Your task to perform on an android device: toggle notifications settings in the gmail app Image 0: 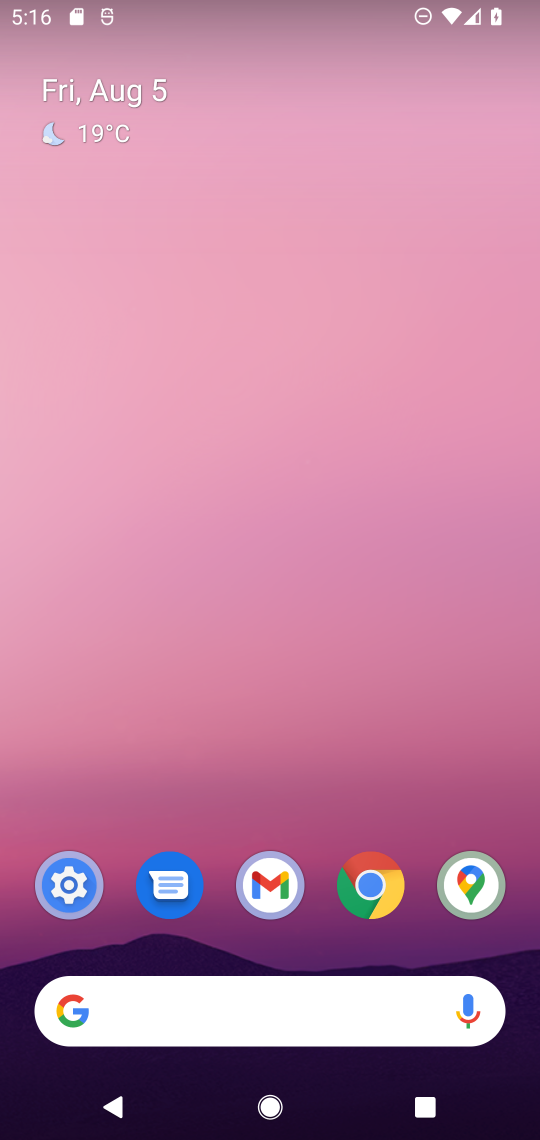
Step 0: drag from (324, 956) to (322, 0)
Your task to perform on an android device: toggle notifications settings in the gmail app Image 1: 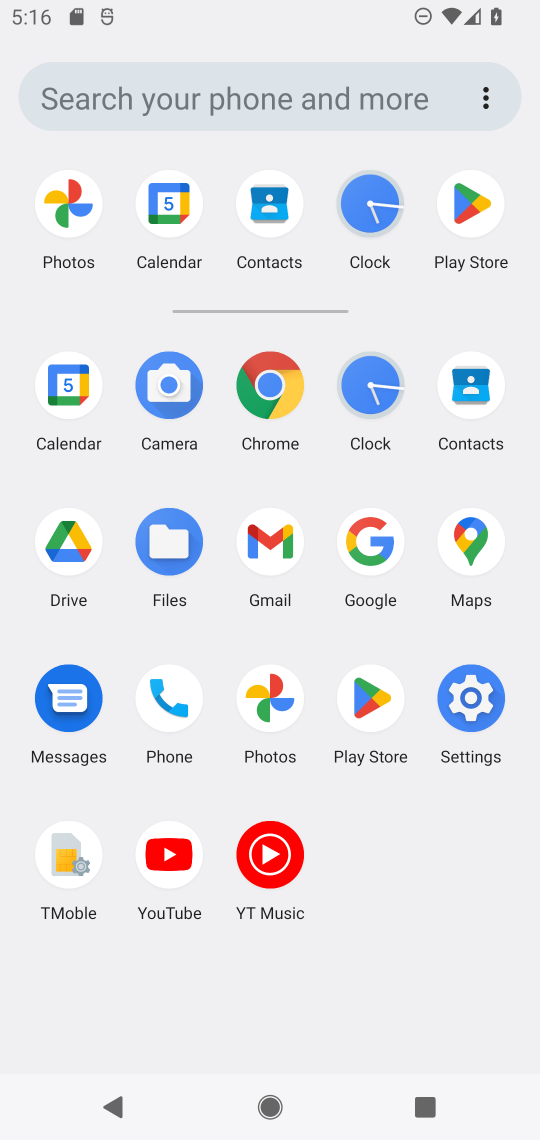
Step 1: click (267, 539)
Your task to perform on an android device: toggle notifications settings in the gmail app Image 2: 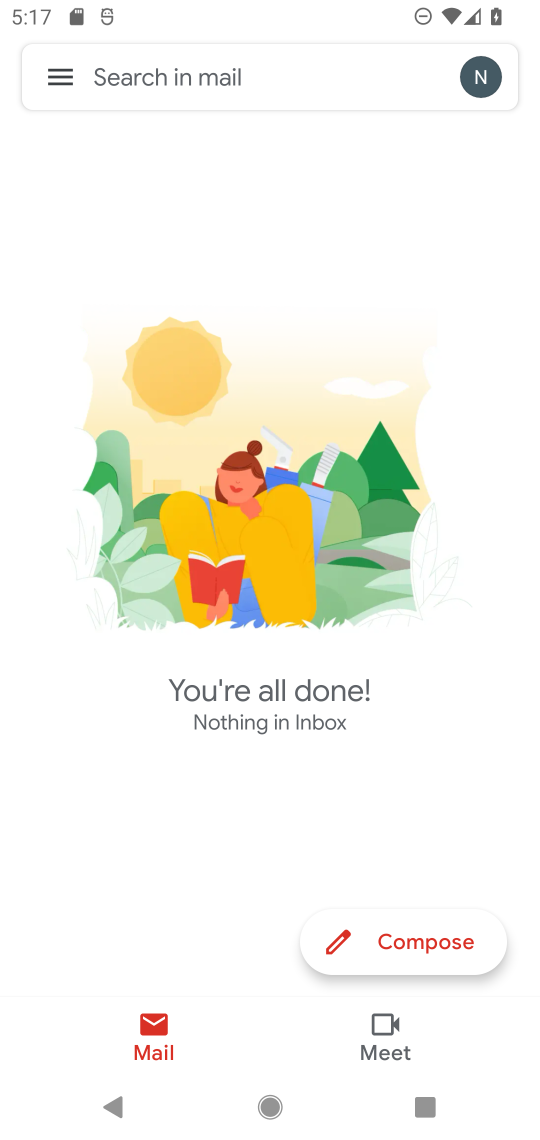
Step 2: click (62, 69)
Your task to perform on an android device: toggle notifications settings in the gmail app Image 3: 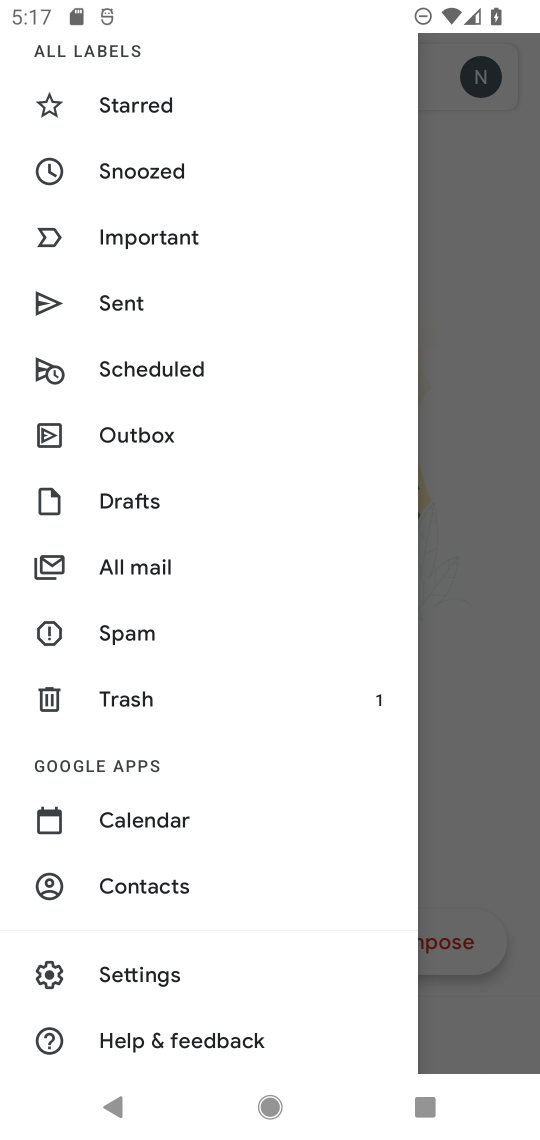
Step 3: click (131, 971)
Your task to perform on an android device: toggle notifications settings in the gmail app Image 4: 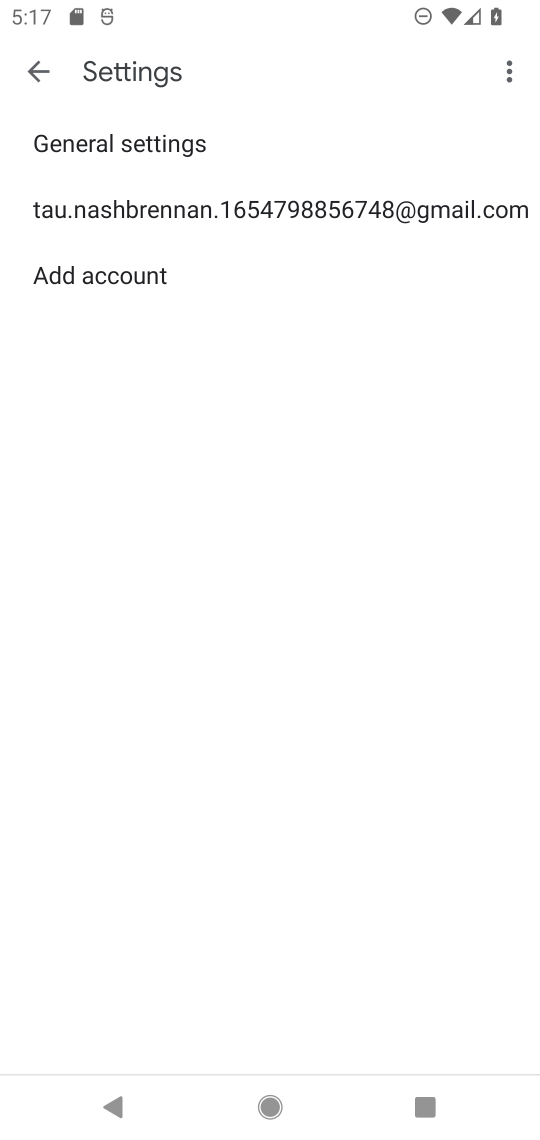
Step 4: click (171, 209)
Your task to perform on an android device: toggle notifications settings in the gmail app Image 5: 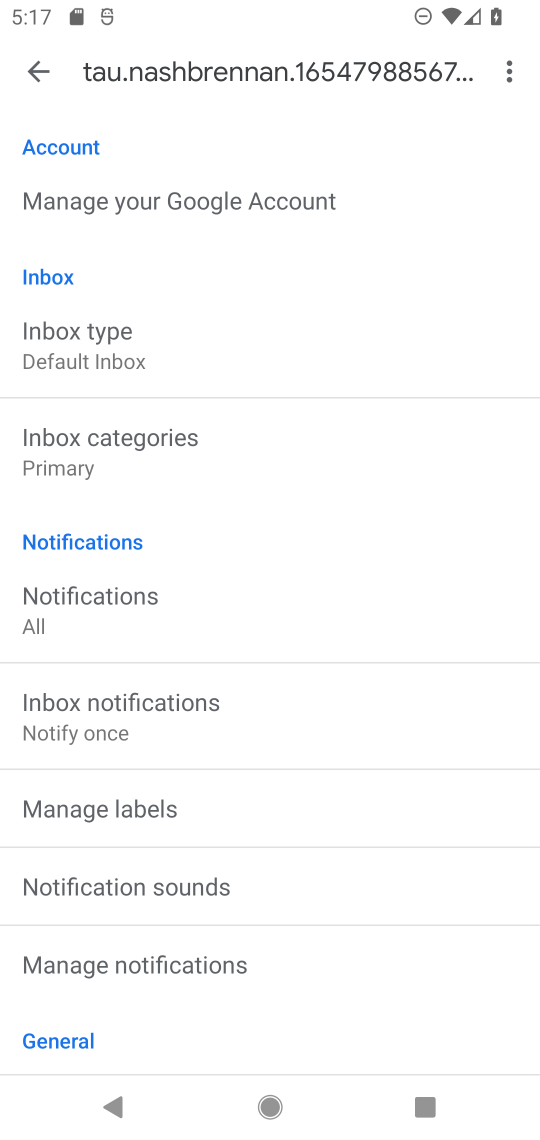
Step 5: click (91, 598)
Your task to perform on an android device: toggle notifications settings in the gmail app Image 6: 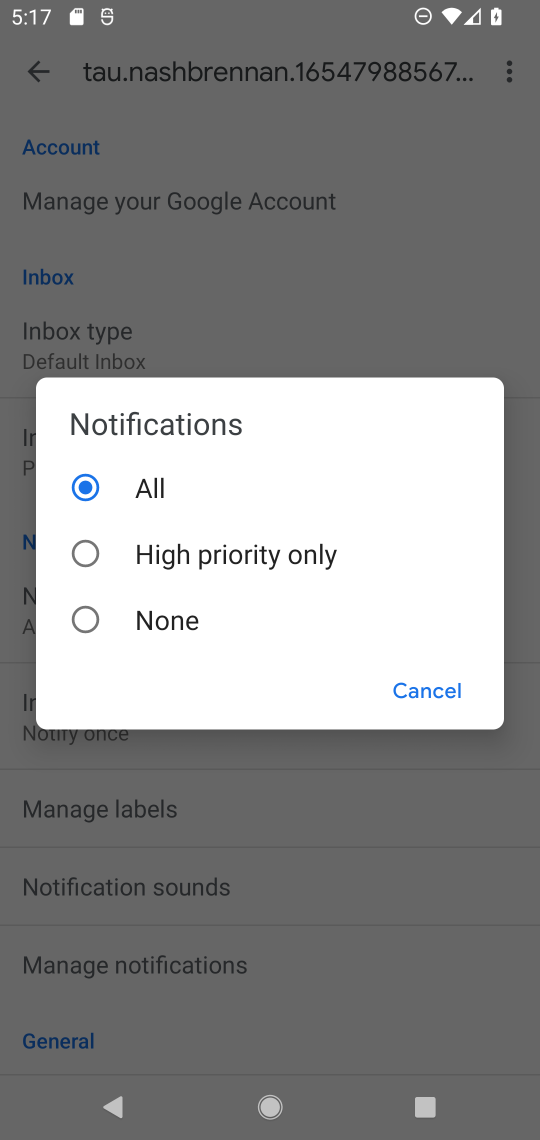
Step 6: click (91, 623)
Your task to perform on an android device: toggle notifications settings in the gmail app Image 7: 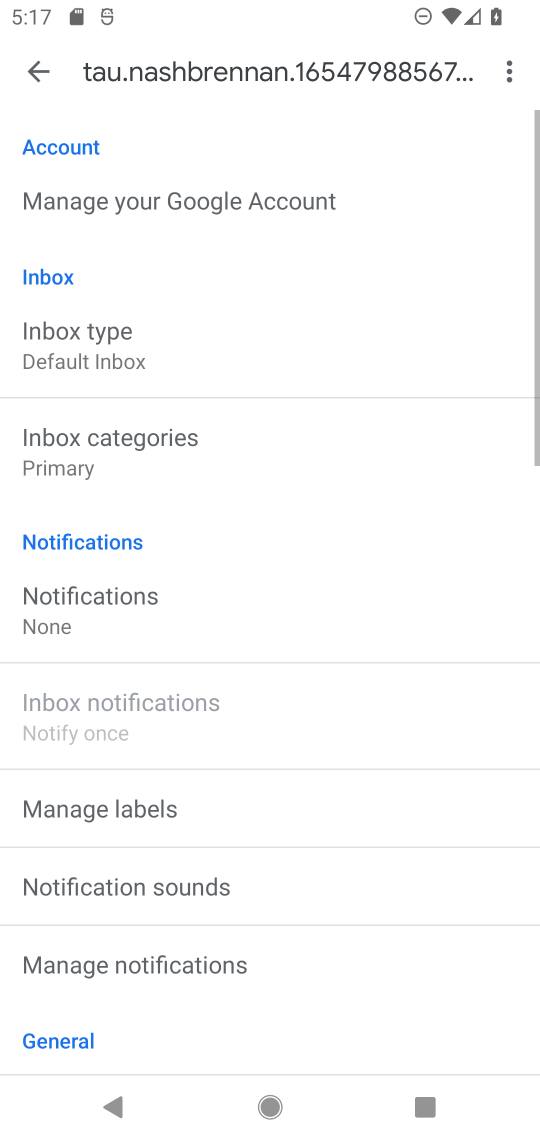
Step 7: task complete